Your task to perform on an android device: check data usage Image 0: 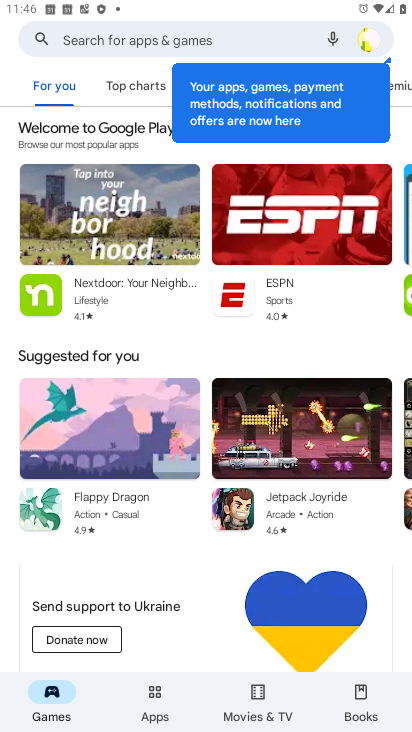
Step 0: press home button
Your task to perform on an android device: check data usage Image 1: 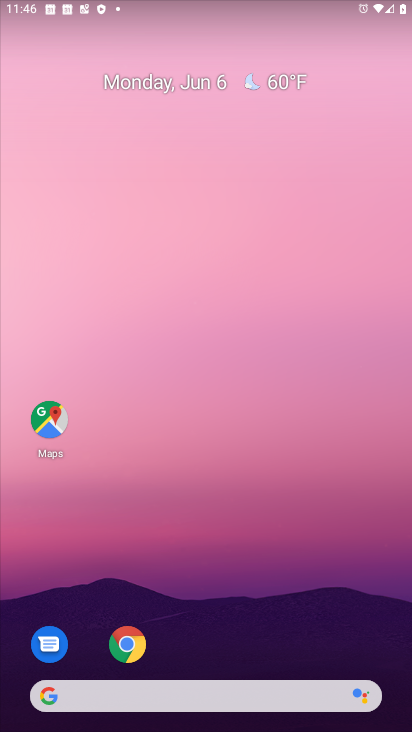
Step 1: drag from (157, 699) to (156, 114)
Your task to perform on an android device: check data usage Image 2: 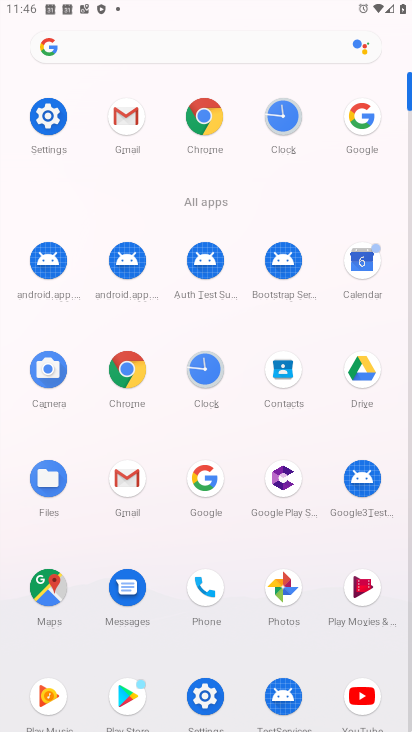
Step 2: click (206, 697)
Your task to perform on an android device: check data usage Image 3: 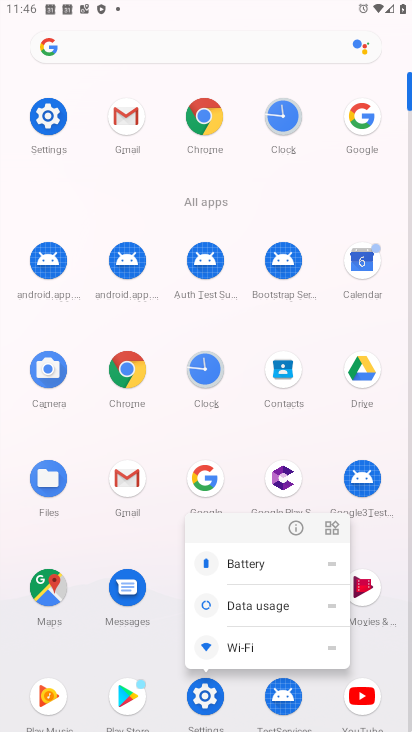
Step 3: click (212, 701)
Your task to perform on an android device: check data usage Image 4: 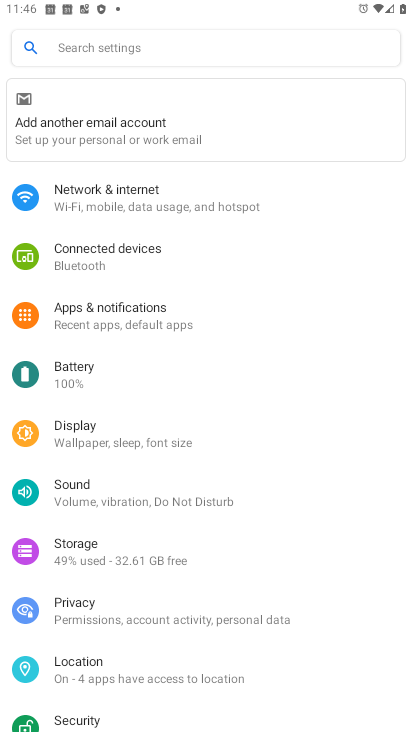
Step 4: click (161, 215)
Your task to perform on an android device: check data usage Image 5: 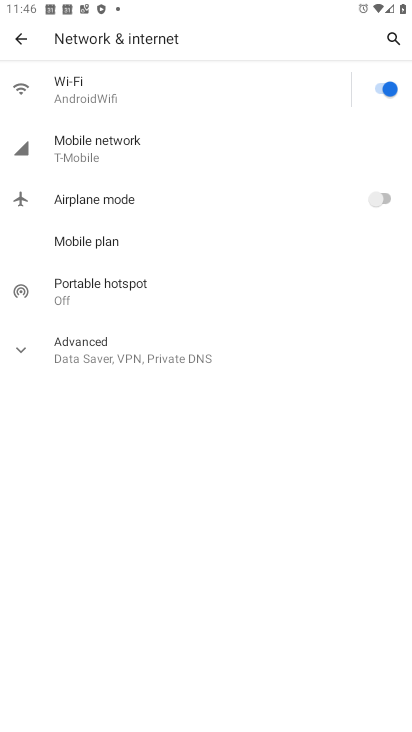
Step 5: click (107, 152)
Your task to perform on an android device: check data usage Image 6: 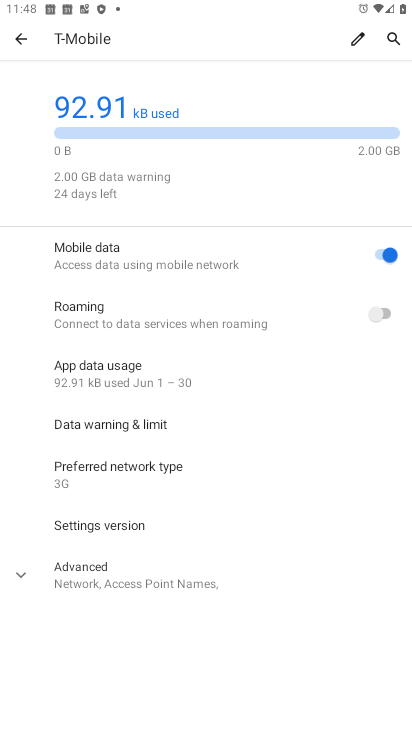
Step 6: task complete